Your task to perform on an android device: turn off notifications in google photos Image 0: 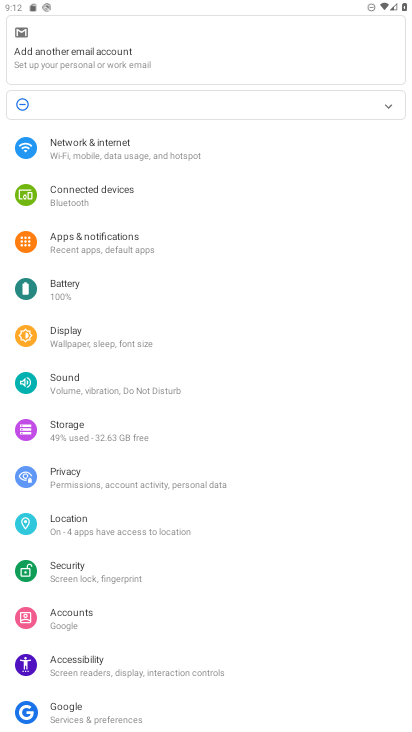
Step 0: press home button
Your task to perform on an android device: turn off notifications in google photos Image 1: 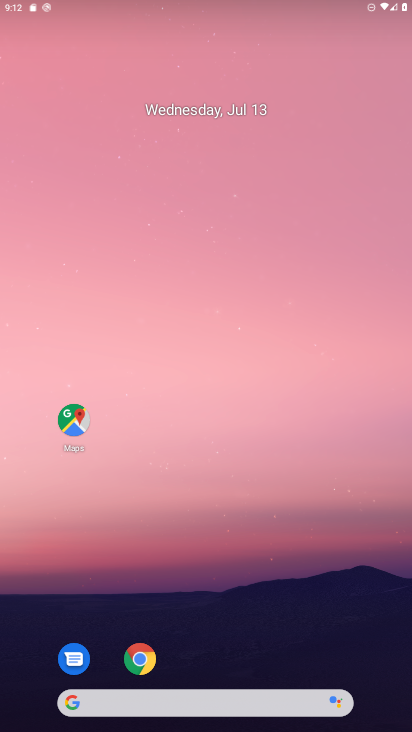
Step 1: drag from (221, 623) to (186, 66)
Your task to perform on an android device: turn off notifications in google photos Image 2: 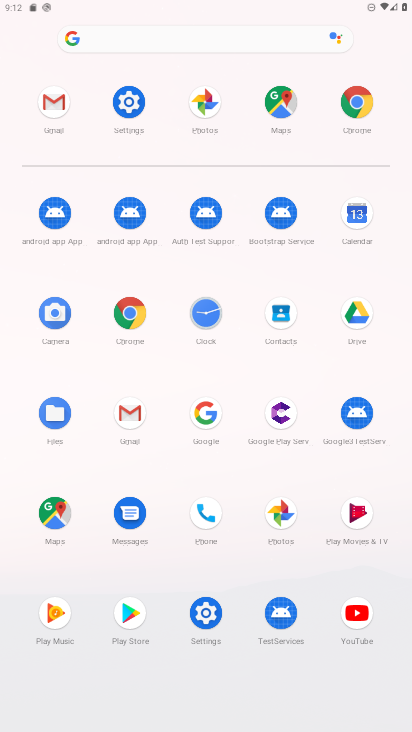
Step 2: click (209, 105)
Your task to perform on an android device: turn off notifications in google photos Image 3: 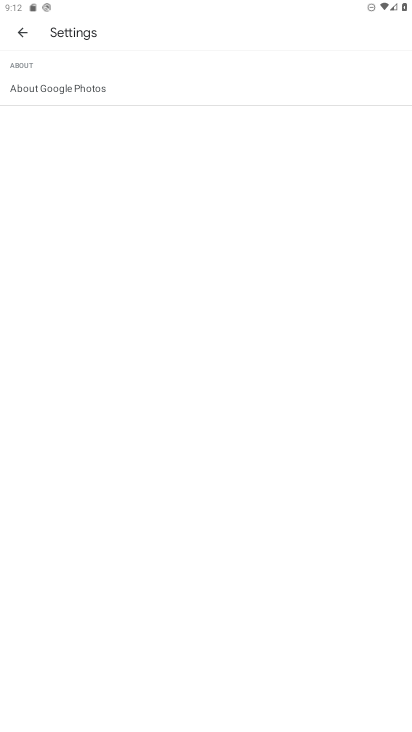
Step 3: task complete